Your task to perform on an android device: turn notification dots off Image 0: 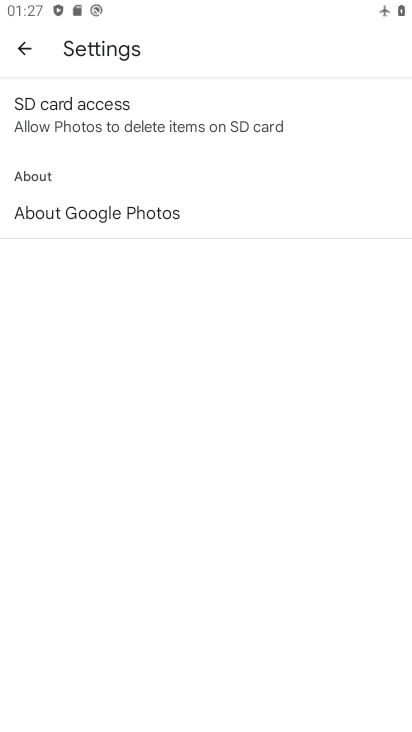
Step 0: press home button
Your task to perform on an android device: turn notification dots off Image 1: 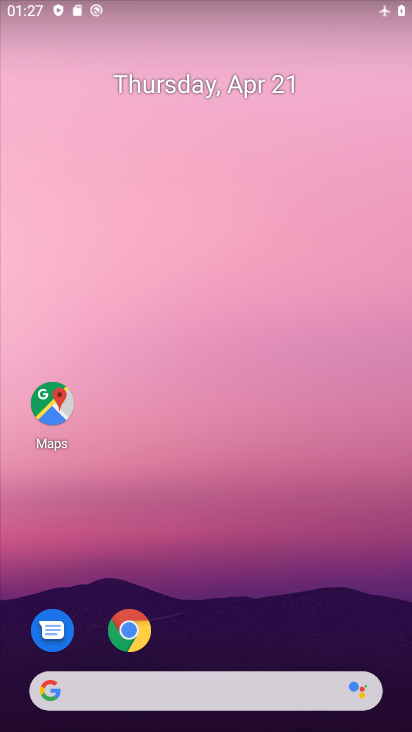
Step 1: drag from (213, 582) to (122, 6)
Your task to perform on an android device: turn notification dots off Image 2: 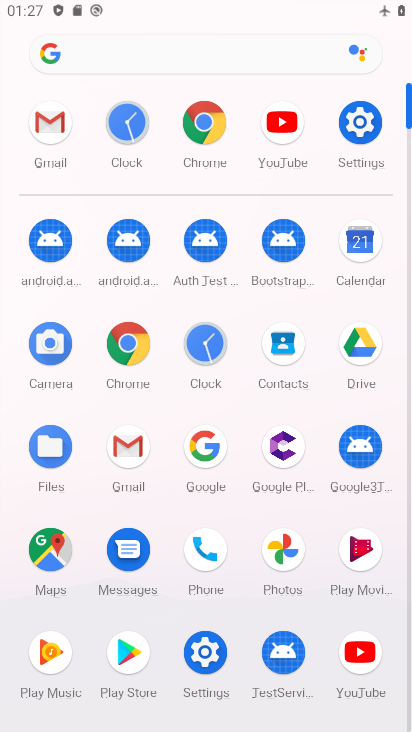
Step 2: click (351, 143)
Your task to perform on an android device: turn notification dots off Image 3: 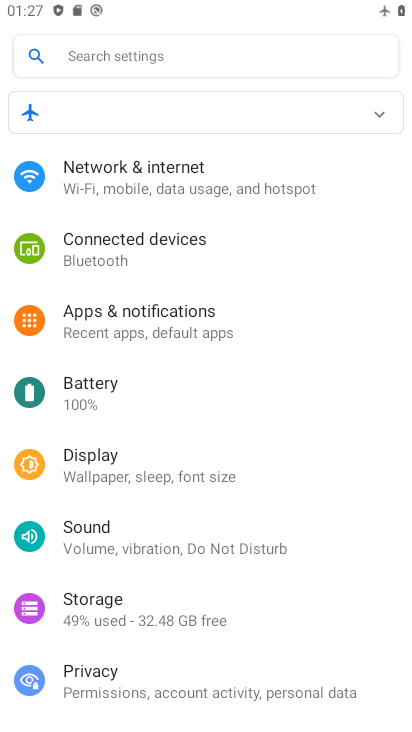
Step 3: click (253, 326)
Your task to perform on an android device: turn notification dots off Image 4: 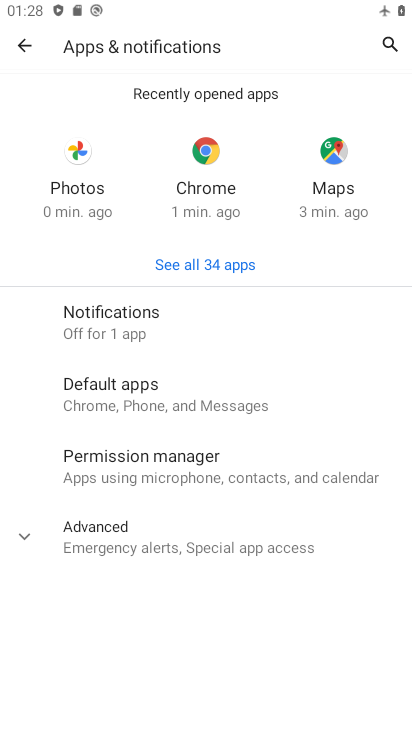
Step 4: click (212, 332)
Your task to perform on an android device: turn notification dots off Image 5: 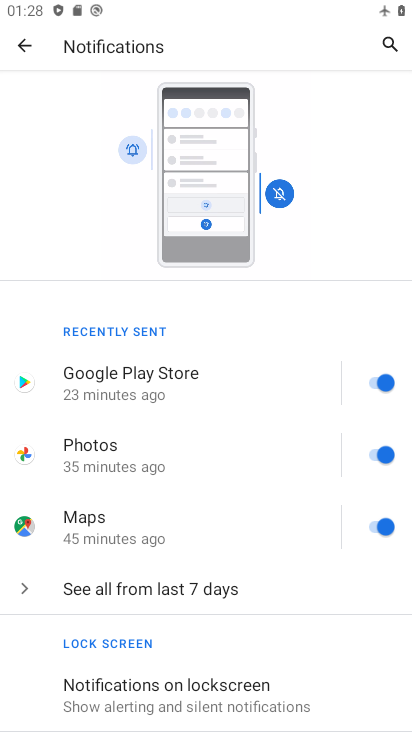
Step 5: drag from (210, 631) to (215, 495)
Your task to perform on an android device: turn notification dots off Image 6: 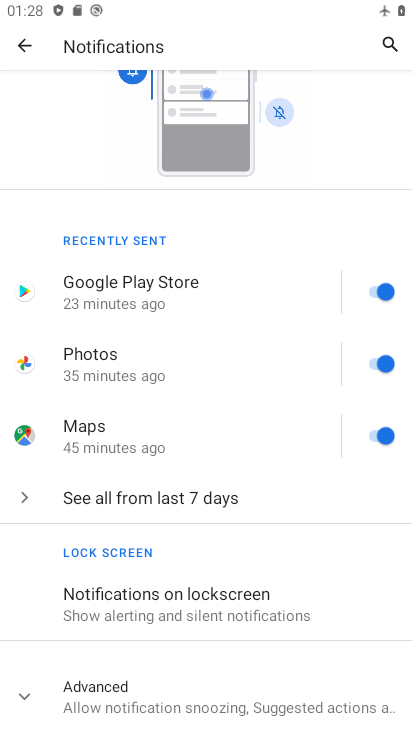
Step 6: click (104, 678)
Your task to perform on an android device: turn notification dots off Image 7: 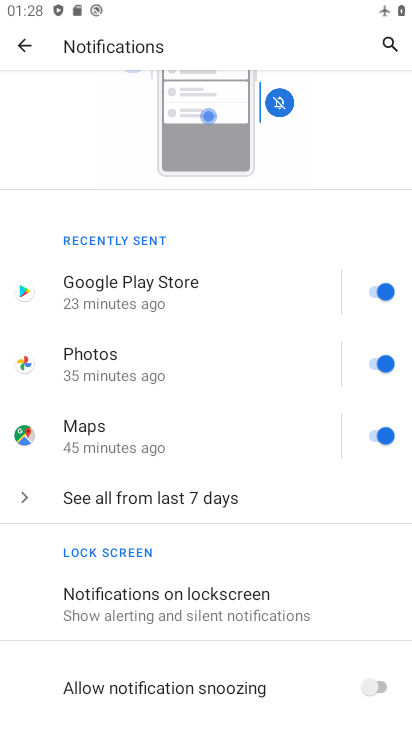
Step 7: drag from (163, 640) to (102, 37)
Your task to perform on an android device: turn notification dots off Image 8: 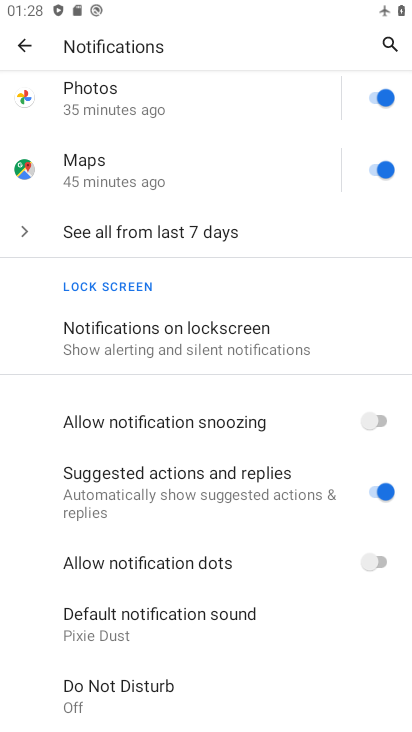
Step 8: click (356, 559)
Your task to perform on an android device: turn notification dots off Image 9: 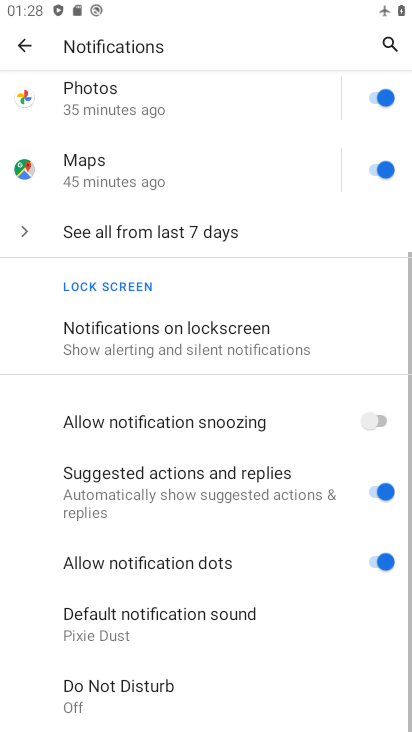
Step 9: task complete